Your task to perform on an android device: What's the weather? Image 0: 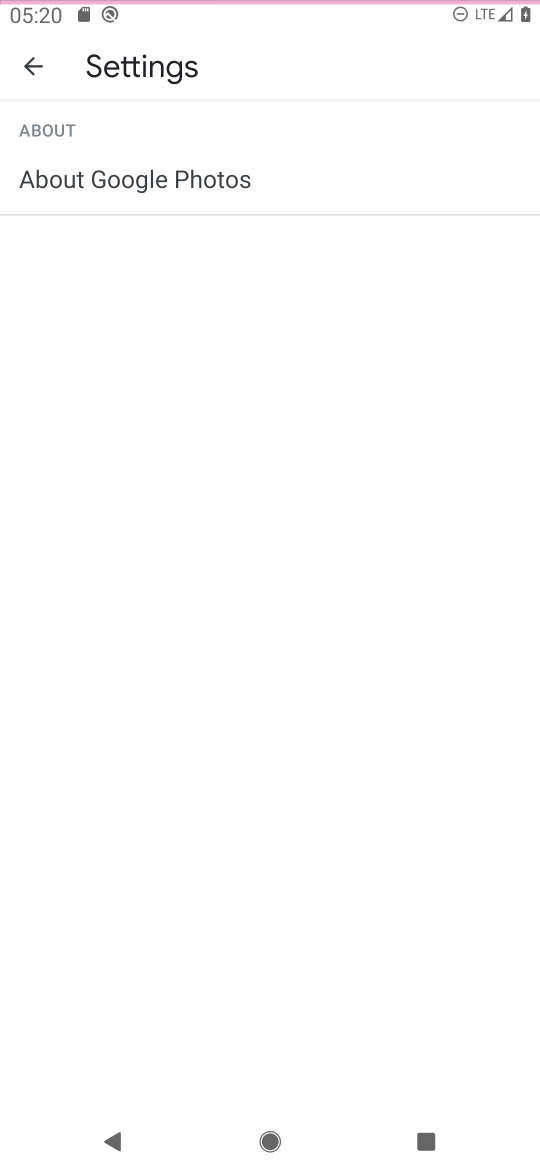
Step 0: press home button
Your task to perform on an android device: What's the weather? Image 1: 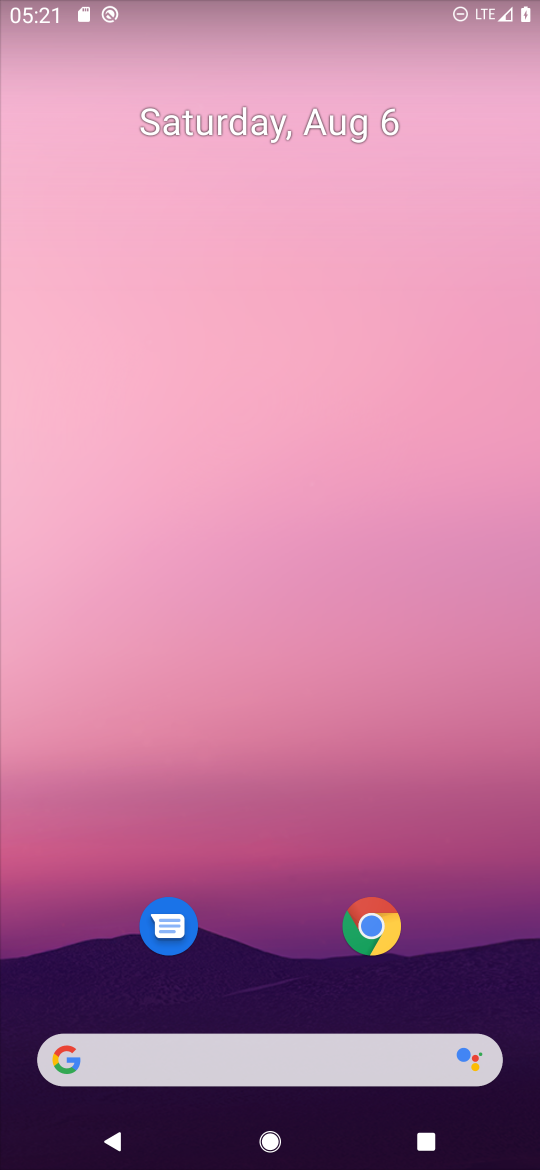
Step 1: drag from (274, 478) to (274, 286)
Your task to perform on an android device: What's the weather? Image 2: 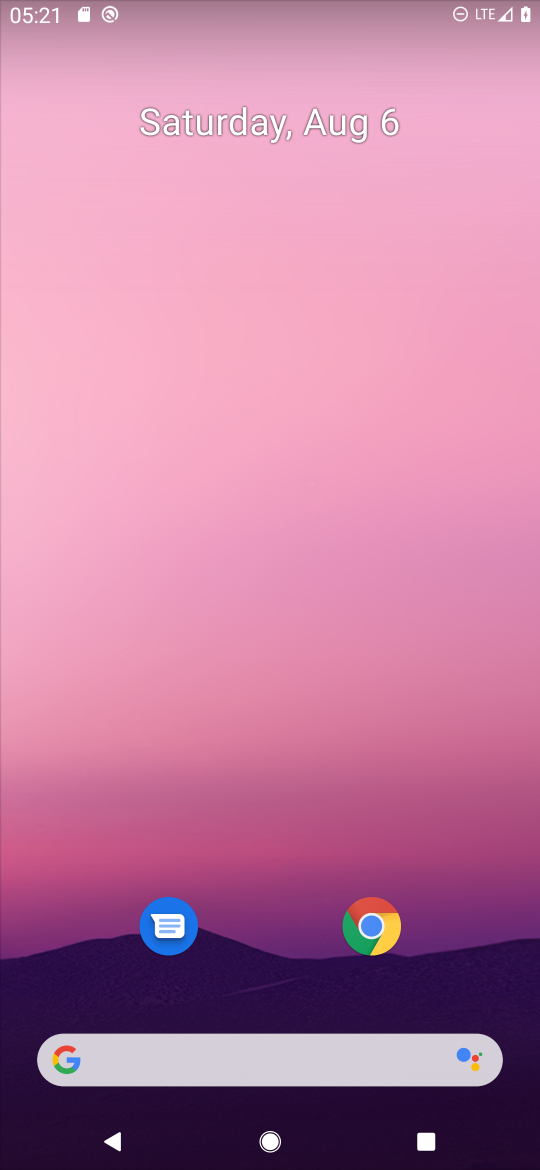
Step 2: drag from (271, 922) to (278, 180)
Your task to perform on an android device: What's the weather? Image 3: 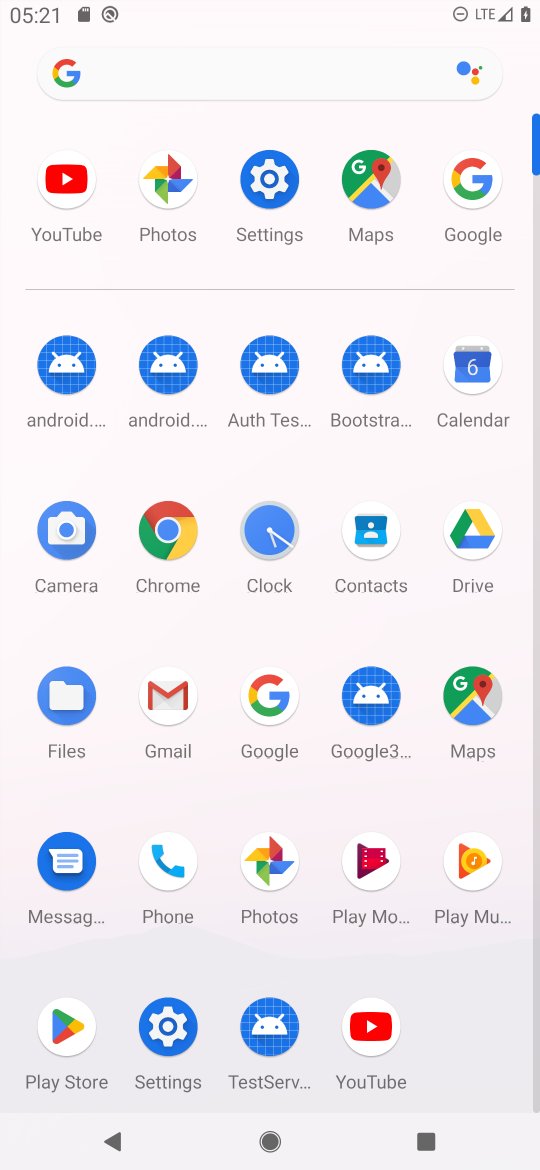
Step 3: click (257, 688)
Your task to perform on an android device: What's the weather? Image 4: 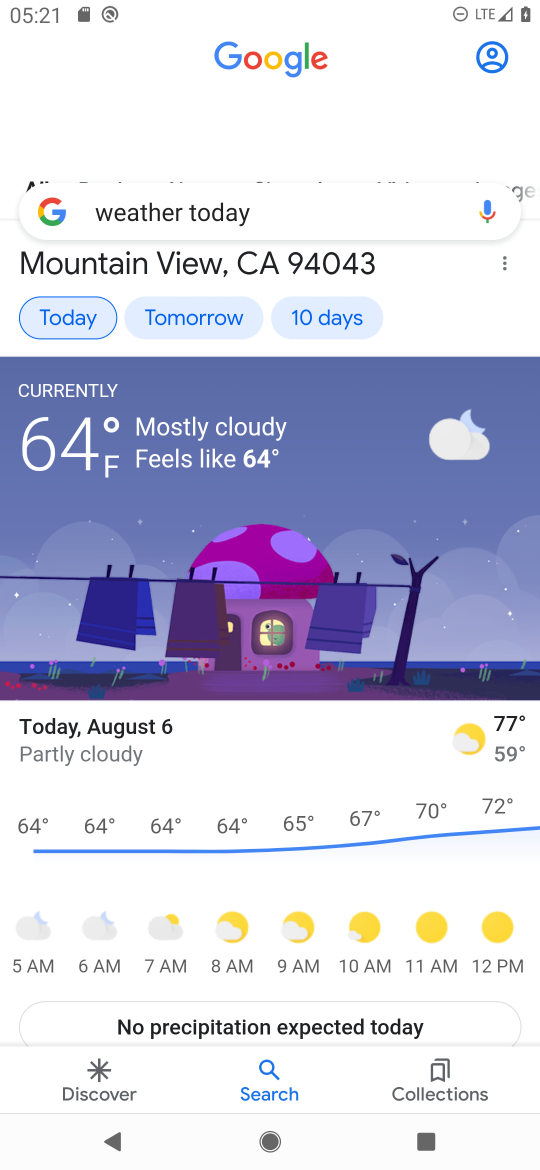
Step 4: task complete